Your task to perform on an android device: find snoozed emails in the gmail app Image 0: 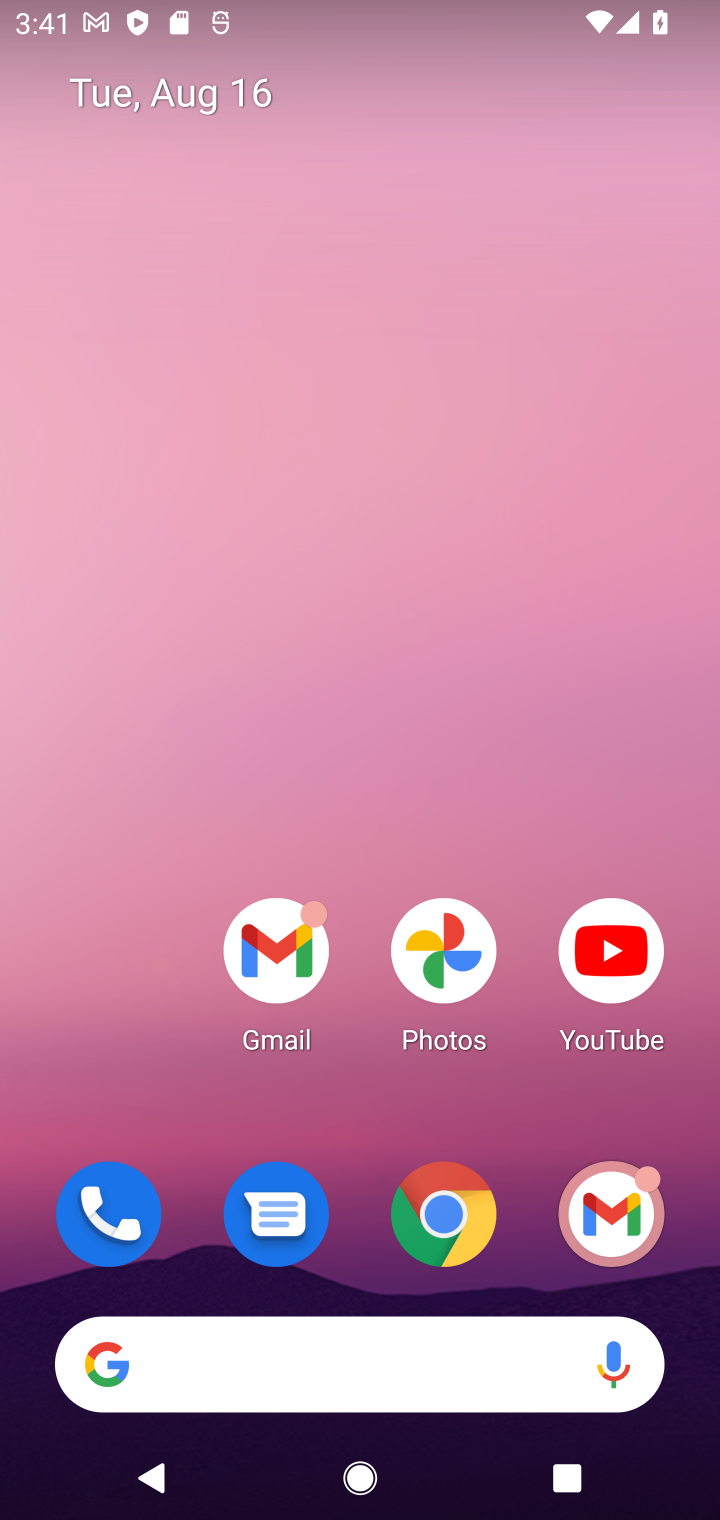
Step 0: drag from (331, 1200) to (61, 28)
Your task to perform on an android device: find snoozed emails in the gmail app Image 1: 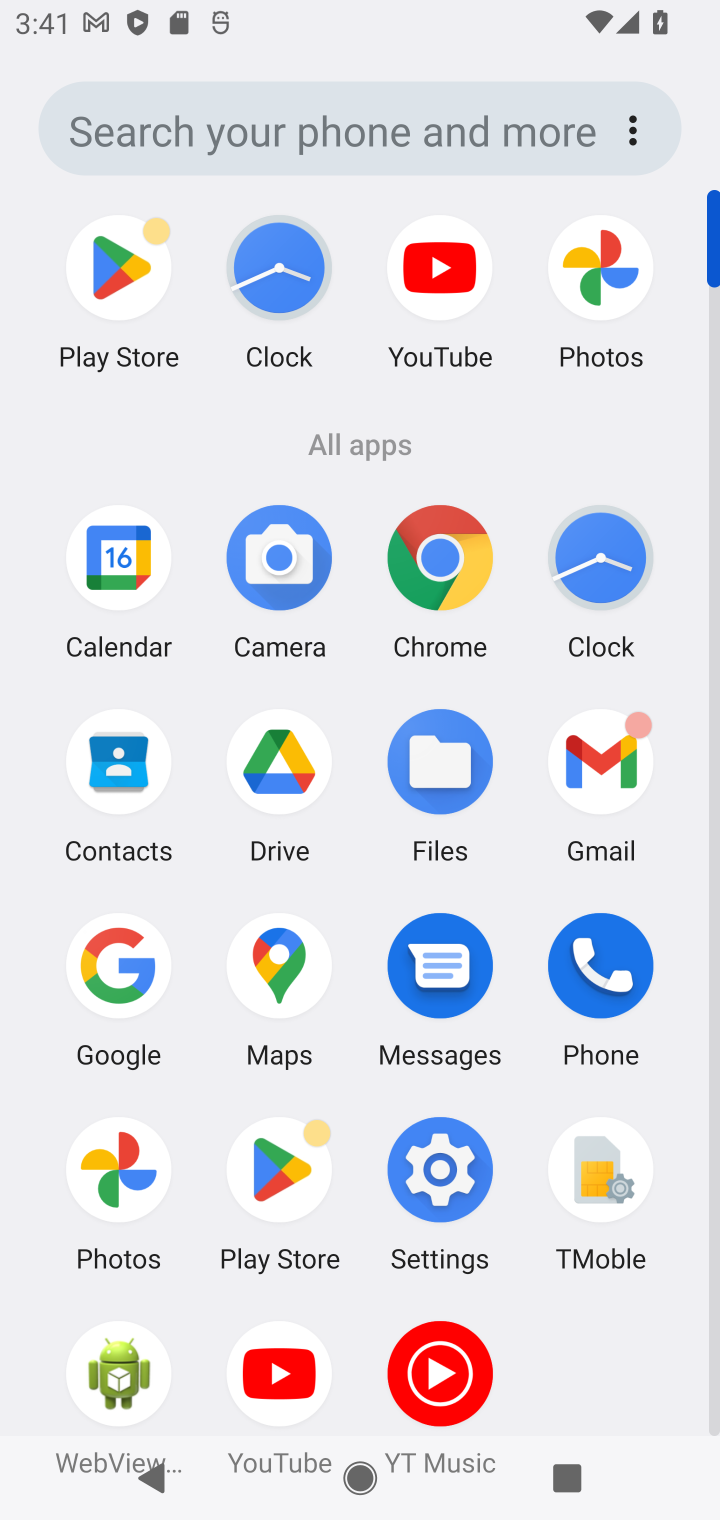
Step 1: click (568, 744)
Your task to perform on an android device: find snoozed emails in the gmail app Image 2: 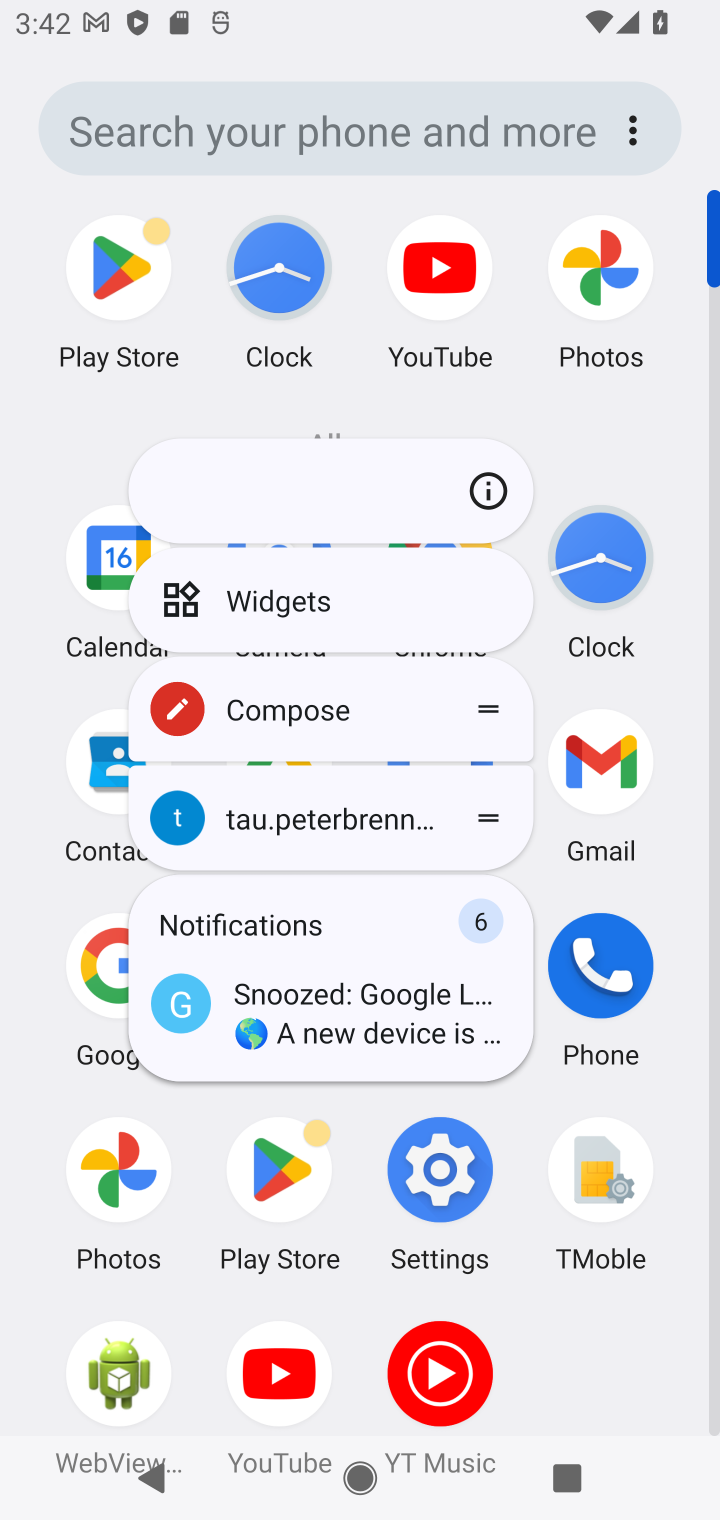
Step 2: click (423, 402)
Your task to perform on an android device: find snoozed emails in the gmail app Image 3: 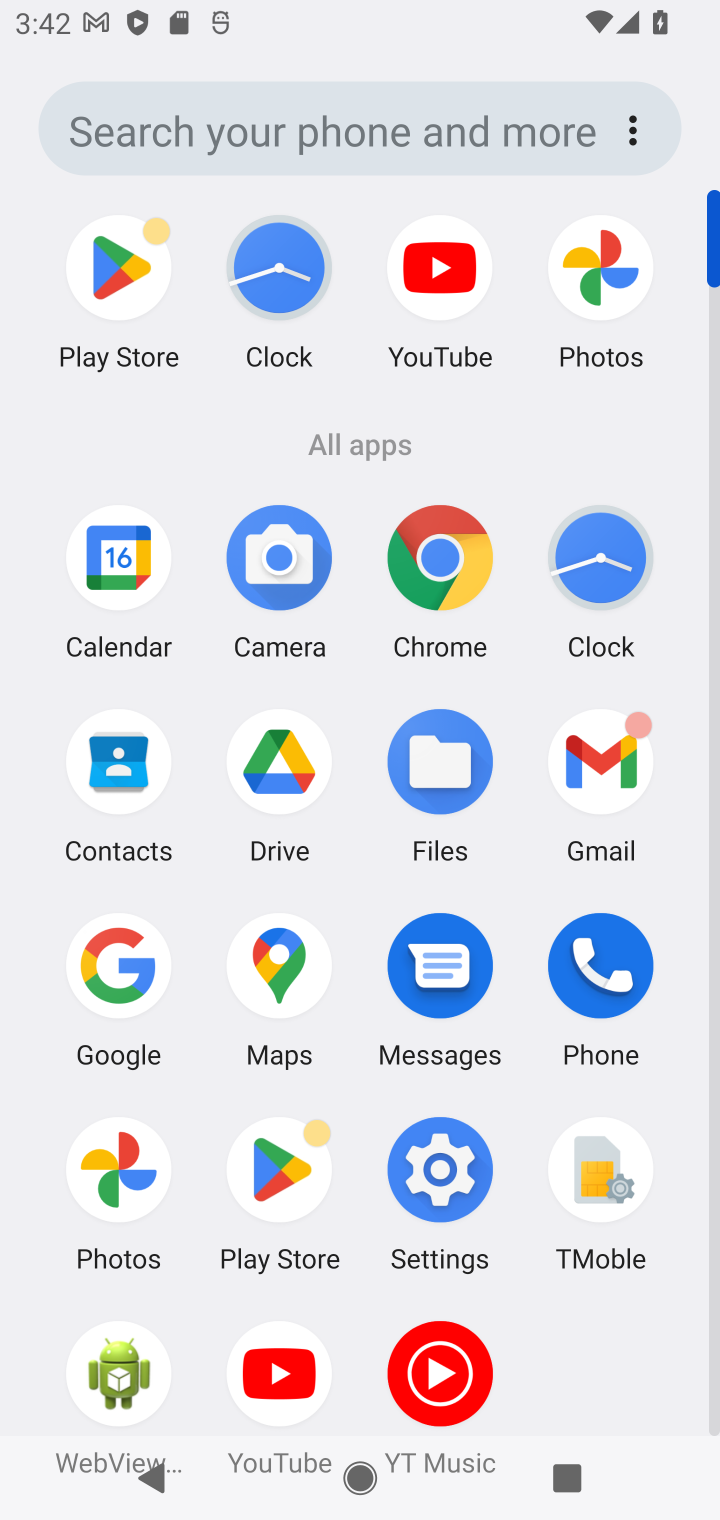
Step 3: click (619, 769)
Your task to perform on an android device: find snoozed emails in the gmail app Image 4: 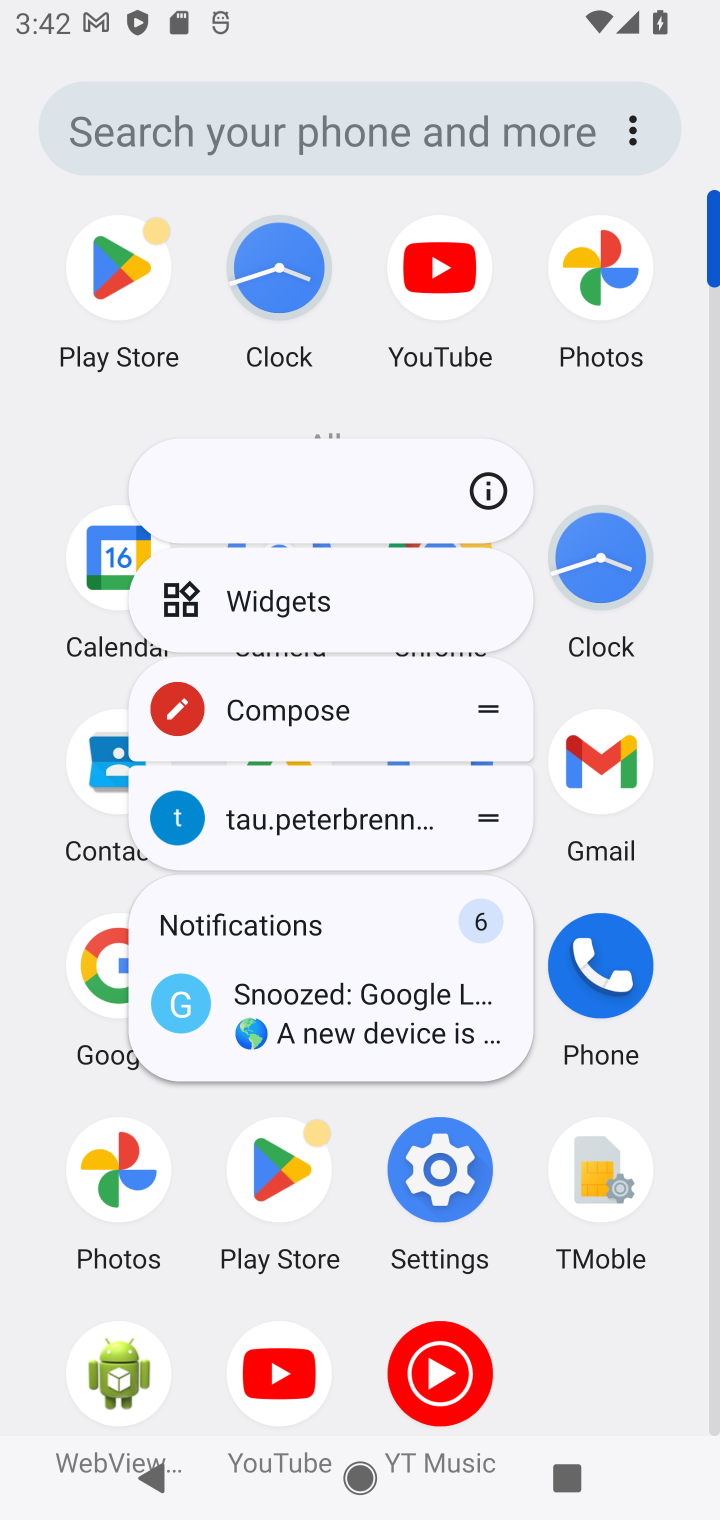
Step 4: click (584, 767)
Your task to perform on an android device: find snoozed emails in the gmail app Image 5: 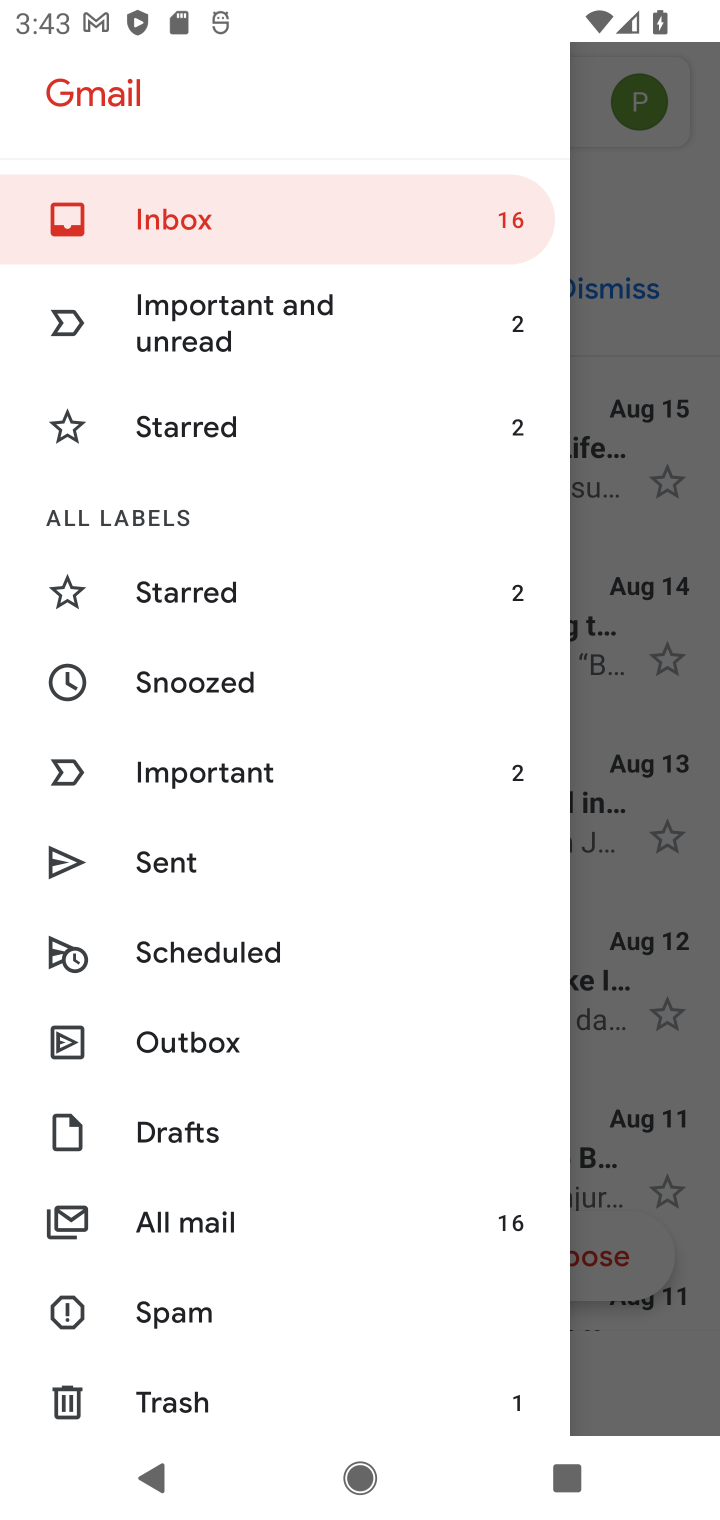
Step 5: click (213, 701)
Your task to perform on an android device: find snoozed emails in the gmail app Image 6: 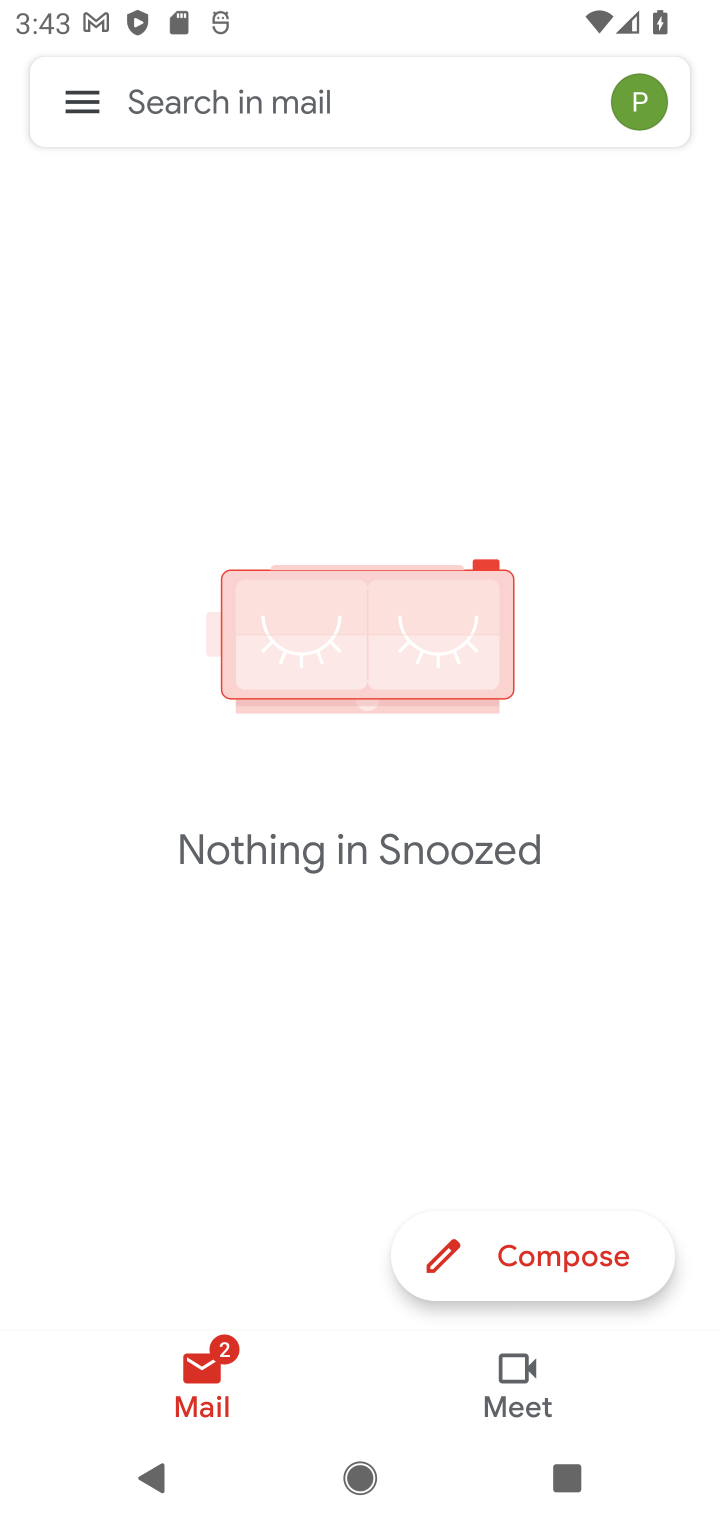
Step 6: task complete